Your task to perform on an android device: Open my contact list Image 0: 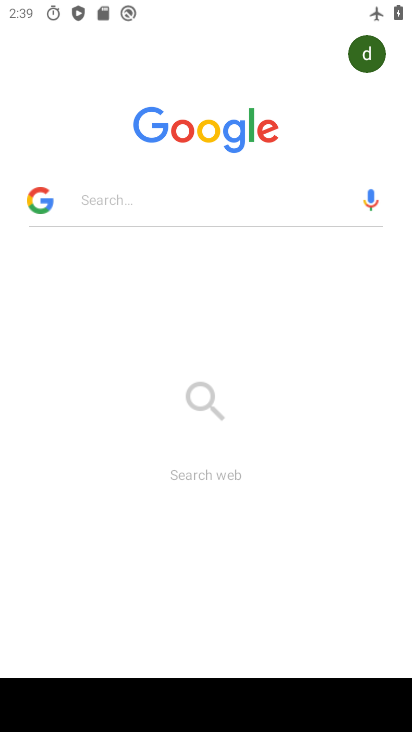
Step 0: press back button
Your task to perform on an android device: Open my contact list Image 1: 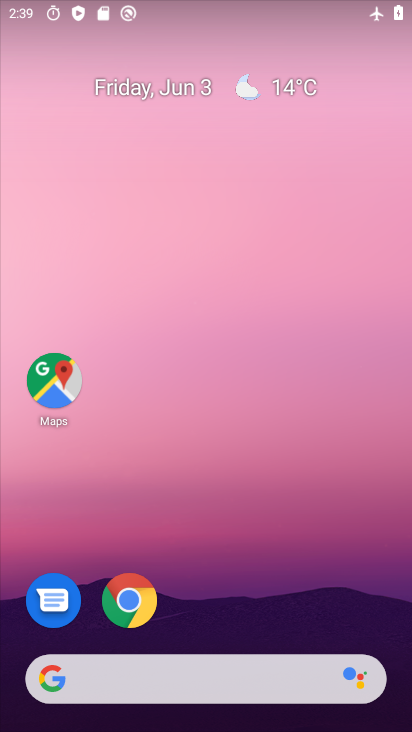
Step 1: drag from (257, 556) to (241, 3)
Your task to perform on an android device: Open my contact list Image 2: 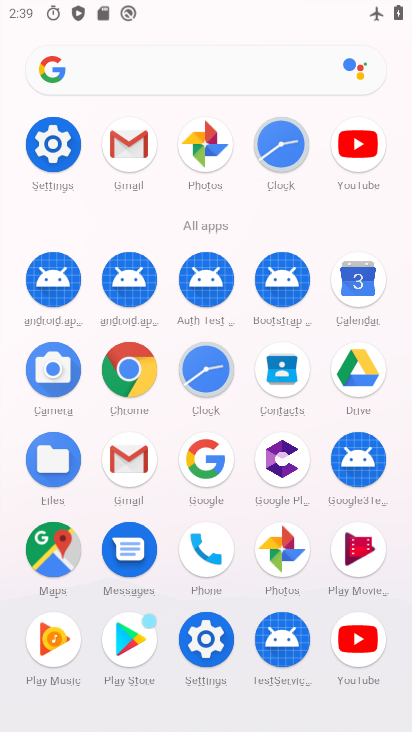
Step 2: click (278, 366)
Your task to perform on an android device: Open my contact list Image 3: 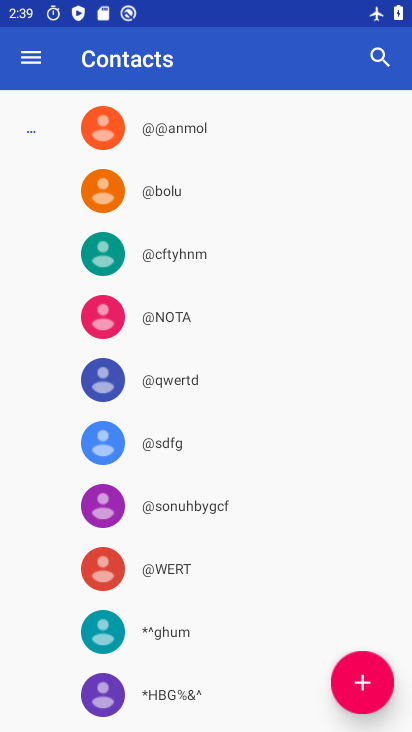
Step 3: task complete